Your task to perform on an android device: Go to Yahoo.com Image 0: 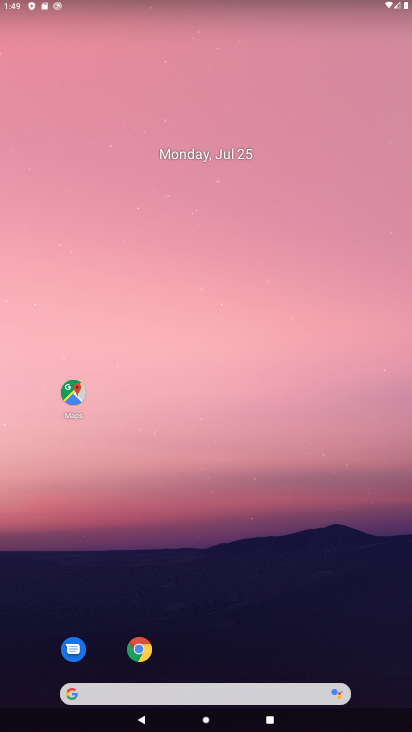
Step 0: click (116, 692)
Your task to perform on an android device: Go to Yahoo.com Image 1: 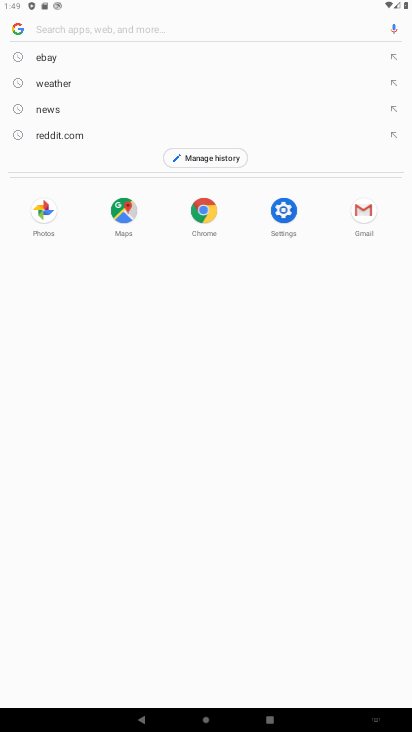
Step 1: type "yahoo.com"
Your task to perform on an android device: Go to Yahoo.com Image 2: 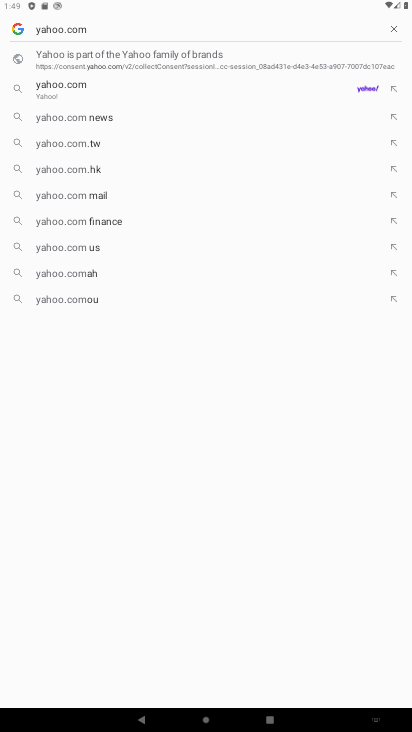
Step 2: click (200, 67)
Your task to perform on an android device: Go to Yahoo.com Image 3: 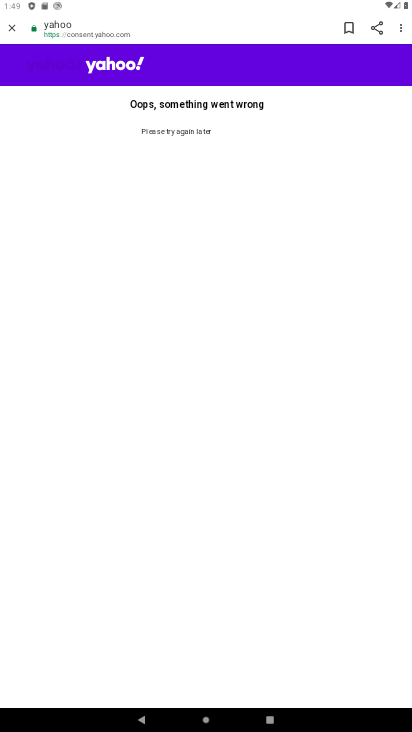
Step 3: task complete